Your task to perform on an android device: Go to display settings Image 0: 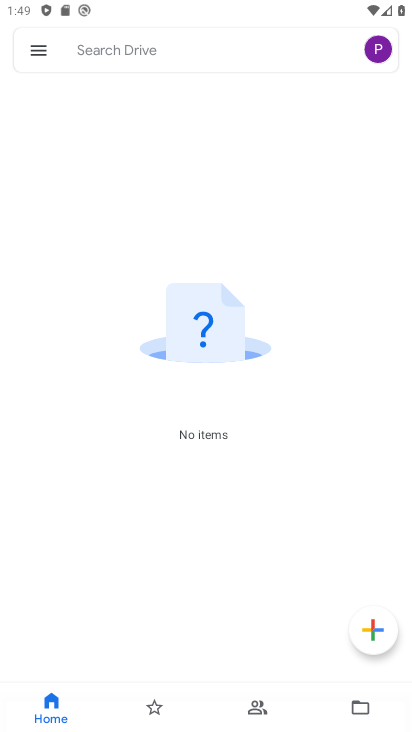
Step 0: press home button
Your task to perform on an android device: Go to display settings Image 1: 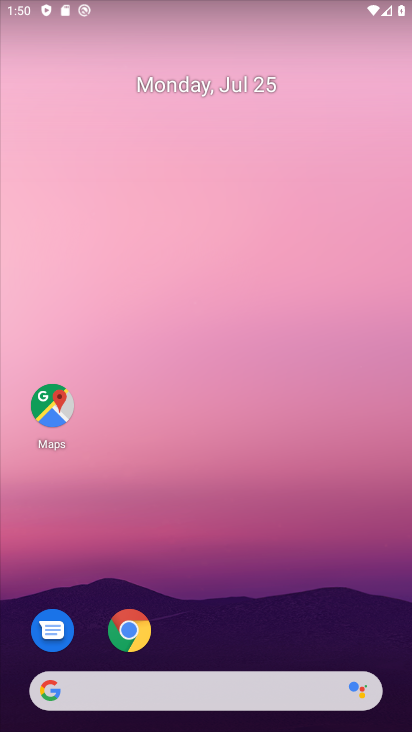
Step 1: drag from (219, 662) to (221, 186)
Your task to perform on an android device: Go to display settings Image 2: 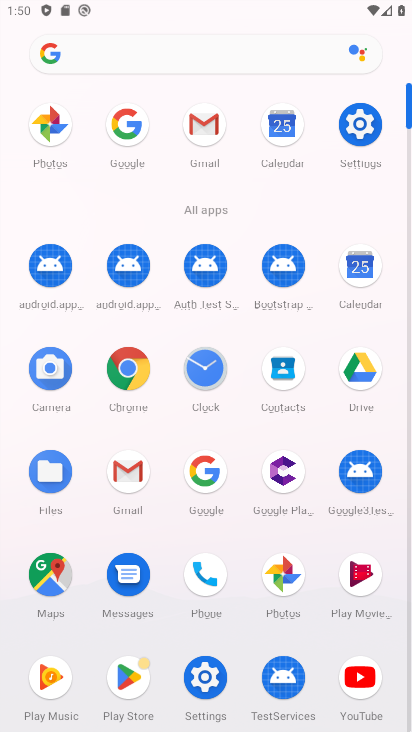
Step 2: click (356, 118)
Your task to perform on an android device: Go to display settings Image 3: 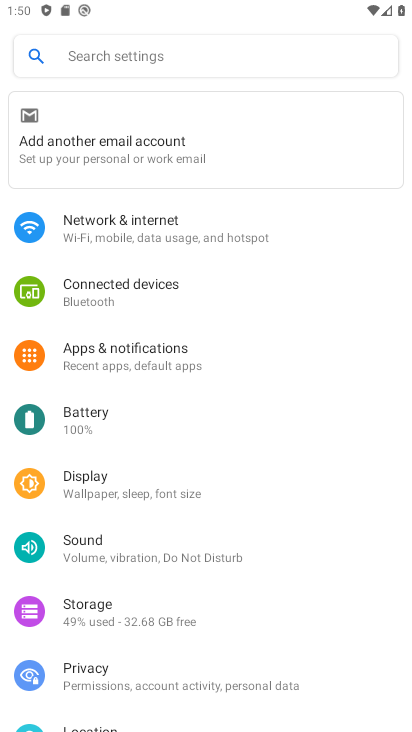
Step 3: click (175, 482)
Your task to perform on an android device: Go to display settings Image 4: 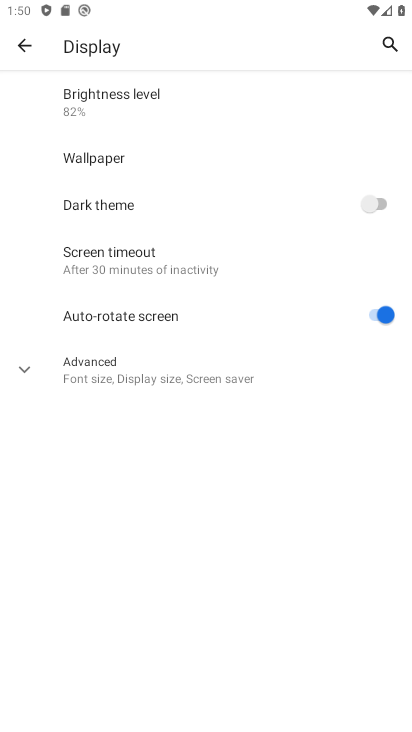
Step 4: task complete